Your task to perform on an android device: Go to Wikipedia Image 0: 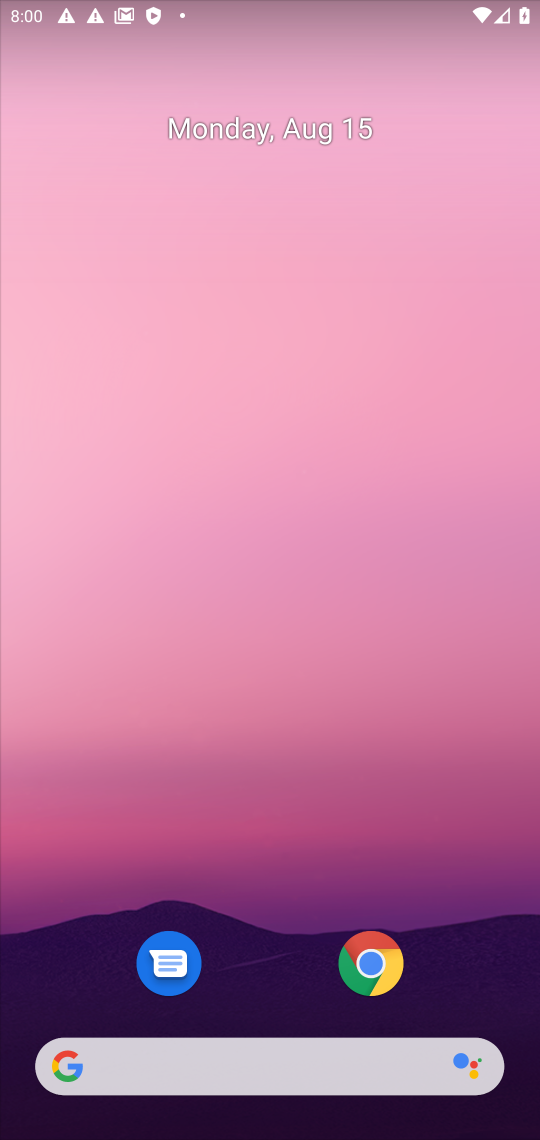
Step 0: click (372, 965)
Your task to perform on an android device: Go to Wikipedia Image 1: 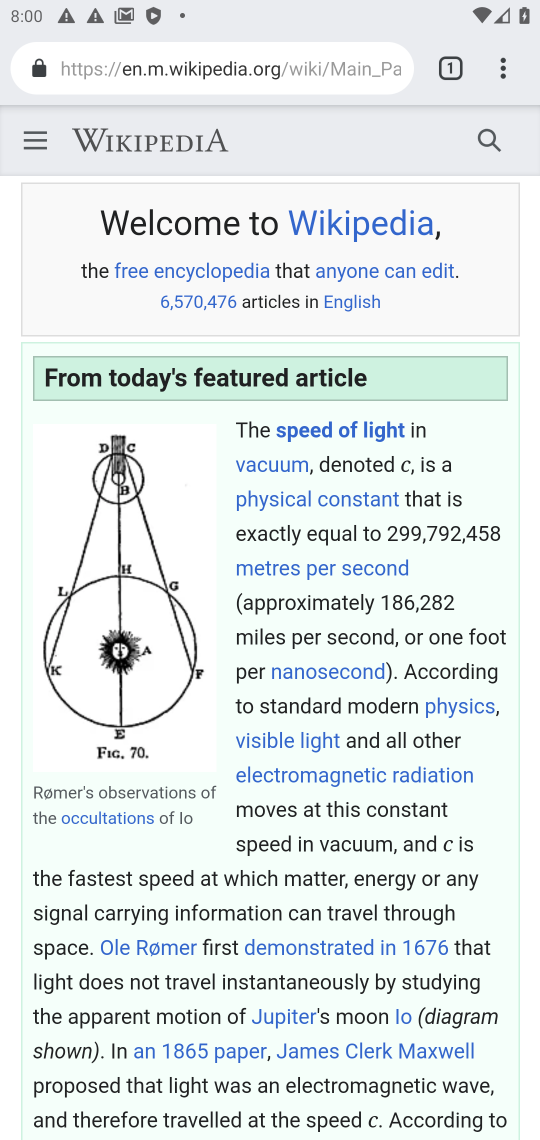
Step 1: task complete